Your task to perform on an android device: Set the phone to "Do not disturb". Image 0: 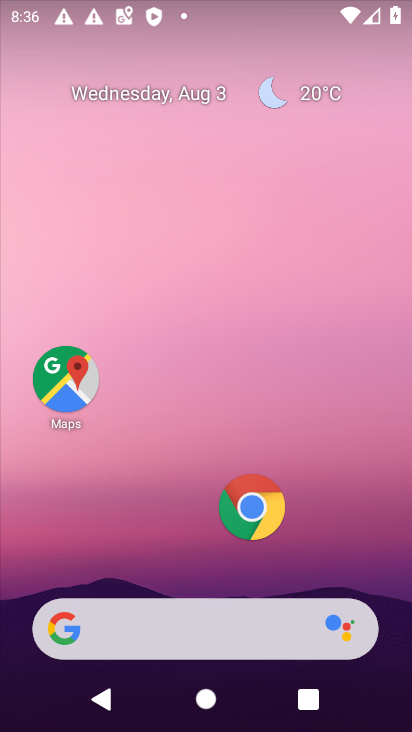
Step 0: drag from (145, 586) to (239, 59)
Your task to perform on an android device: Set the phone to "Do not disturb". Image 1: 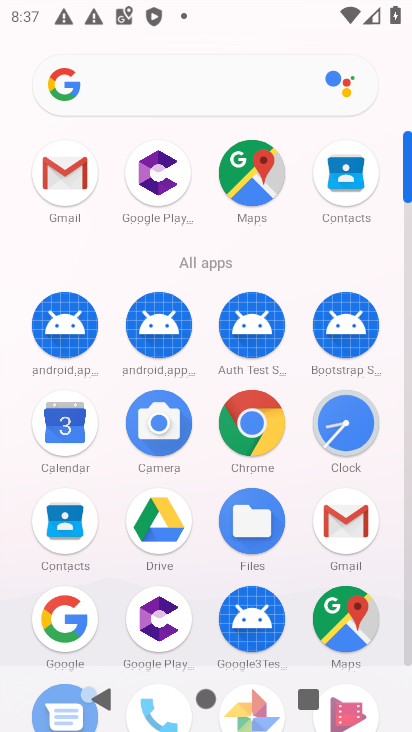
Step 1: drag from (291, 507) to (309, 137)
Your task to perform on an android device: Set the phone to "Do not disturb". Image 2: 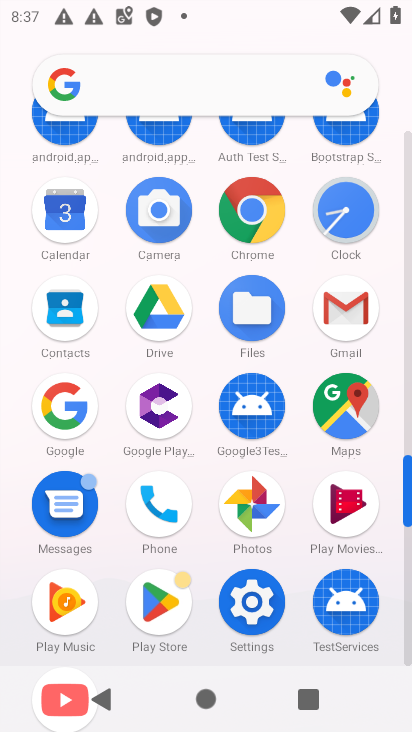
Step 2: click (258, 615)
Your task to perform on an android device: Set the phone to "Do not disturb". Image 3: 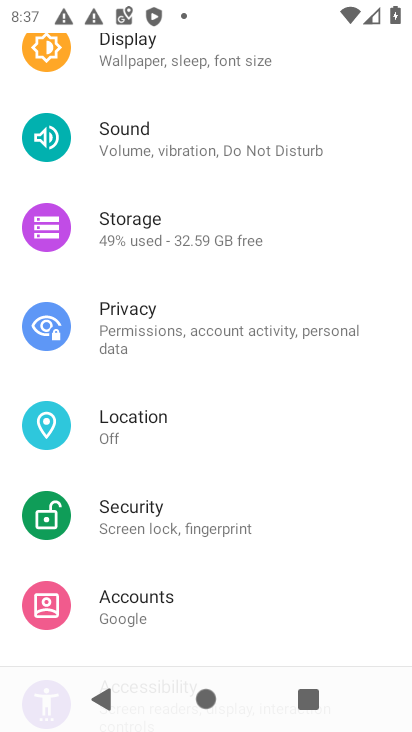
Step 3: drag from (229, 560) to (194, 208)
Your task to perform on an android device: Set the phone to "Do not disturb". Image 4: 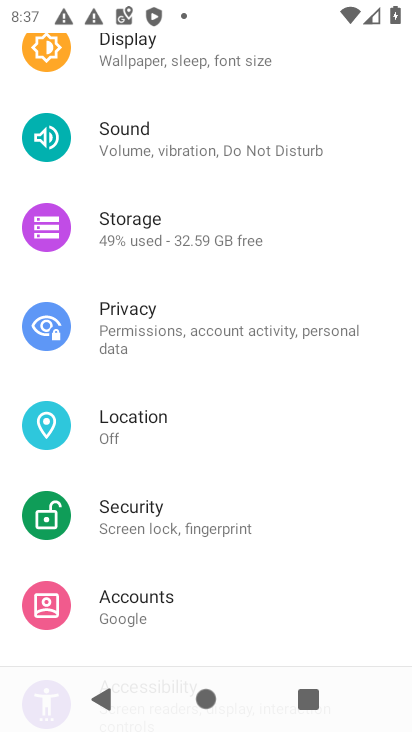
Step 4: drag from (179, 276) to (177, 567)
Your task to perform on an android device: Set the phone to "Do not disturb". Image 5: 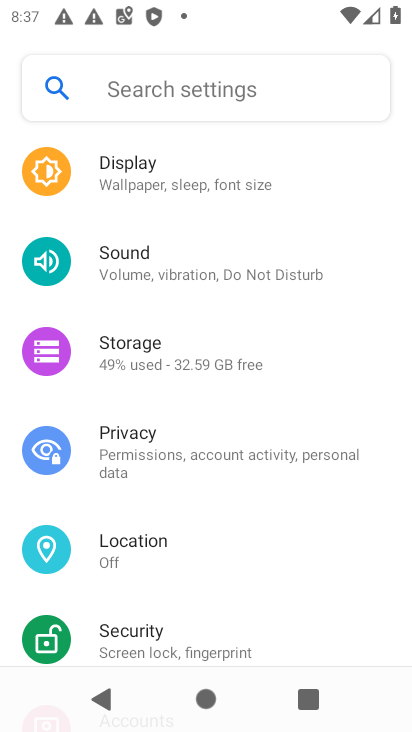
Step 5: drag from (153, 394) to (202, 113)
Your task to perform on an android device: Set the phone to "Do not disturb". Image 6: 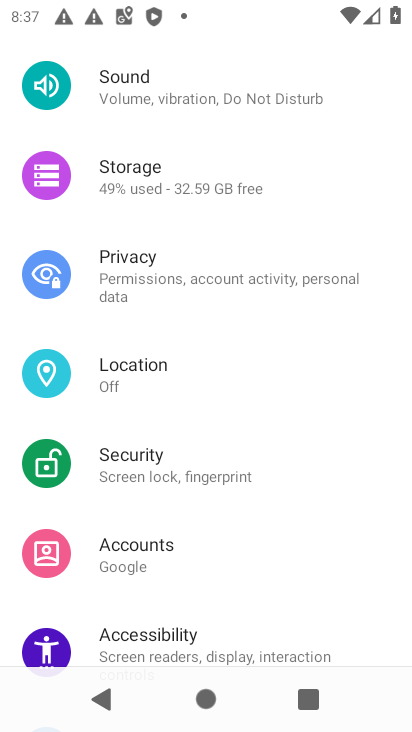
Step 6: click (147, 92)
Your task to perform on an android device: Set the phone to "Do not disturb". Image 7: 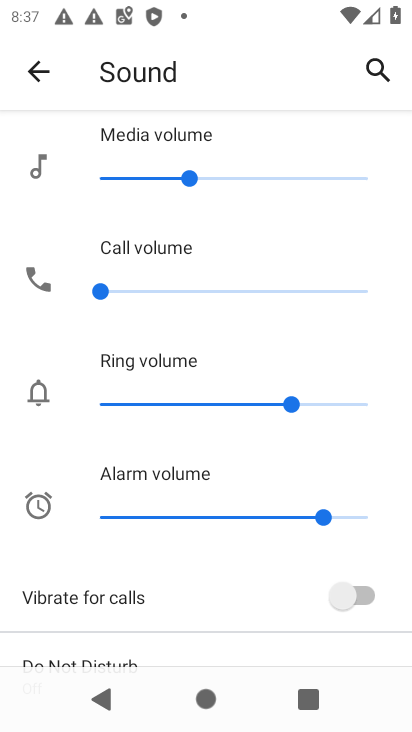
Step 7: click (180, 324)
Your task to perform on an android device: Set the phone to "Do not disturb". Image 8: 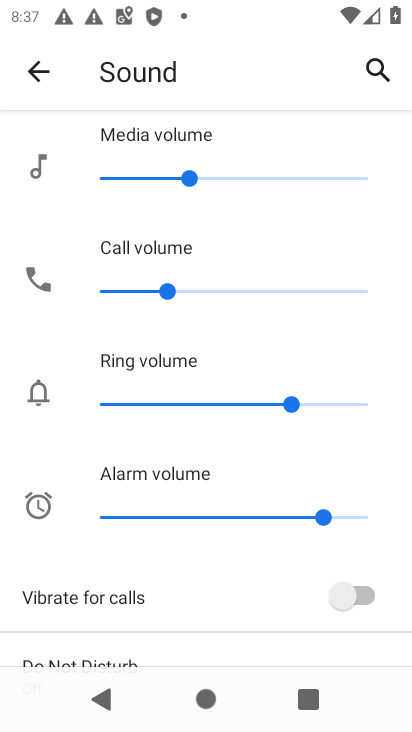
Step 8: drag from (229, 651) to (235, 278)
Your task to perform on an android device: Set the phone to "Do not disturb". Image 9: 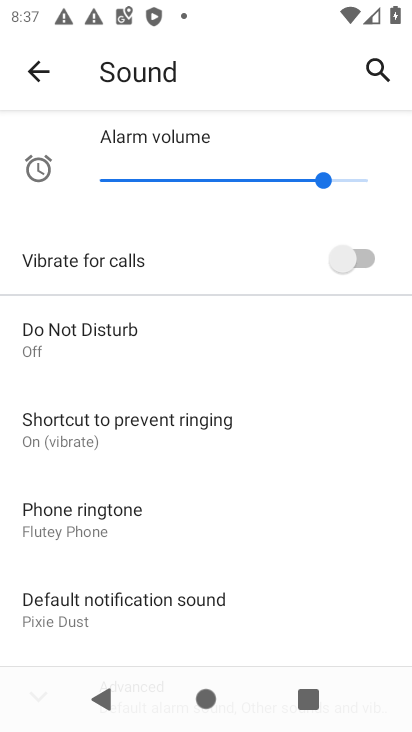
Step 9: click (114, 336)
Your task to perform on an android device: Set the phone to "Do not disturb". Image 10: 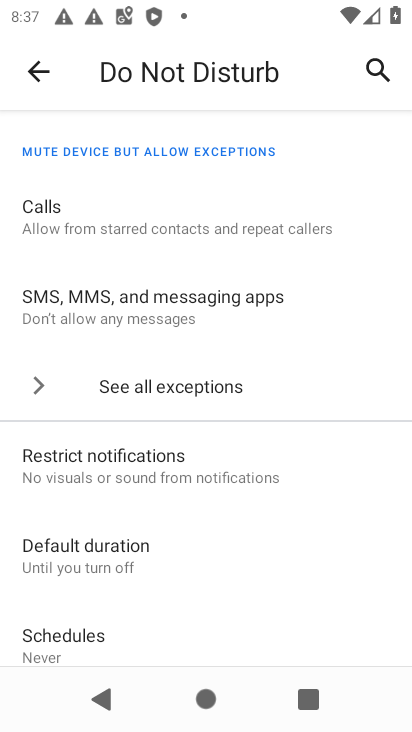
Step 10: drag from (129, 537) to (139, 223)
Your task to perform on an android device: Set the phone to "Do not disturb". Image 11: 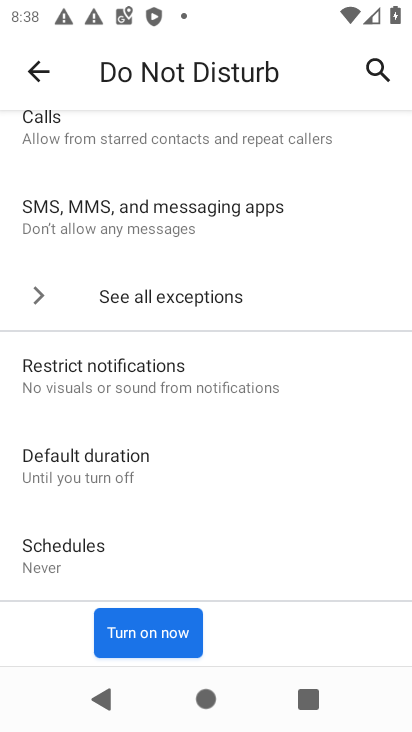
Step 11: click (139, 635)
Your task to perform on an android device: Set the phone to "Do not disturb". Image 12: 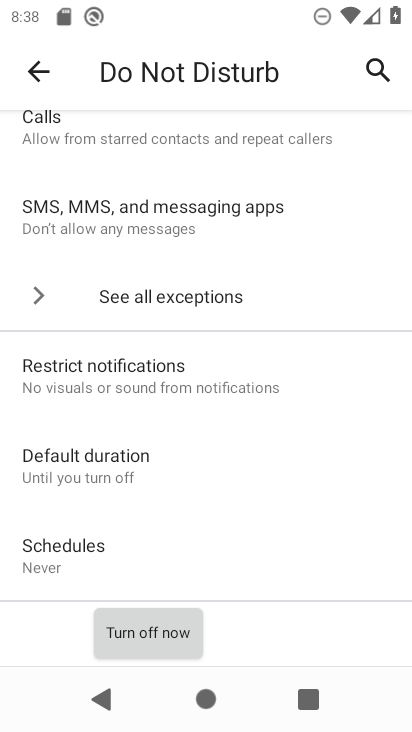
Step 12: task complete